Your task to perform on an android device: delete the emails in spam in the gmail app Image 0: 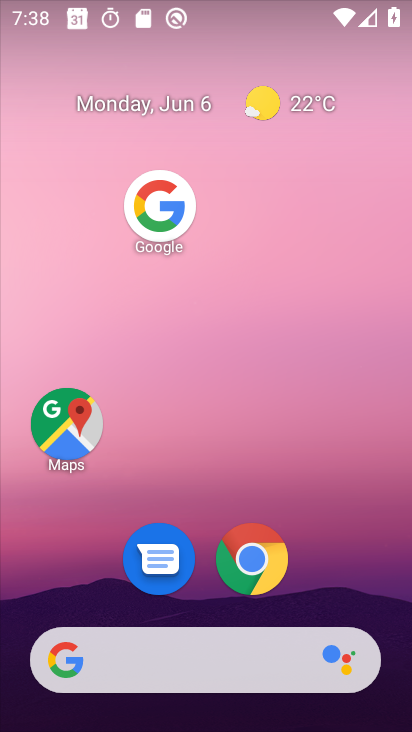
Step 0: drag from (214, 565) to (218, 99)
Your task to perform on an android device: delete the emails in spam in the gmail app Image 1: 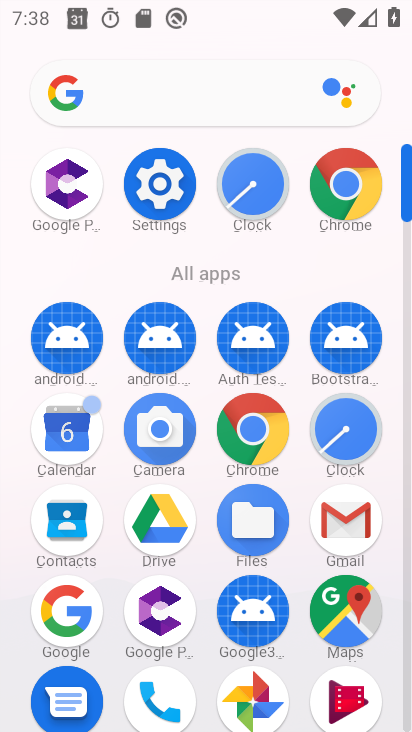
Step 1: click (352, 540)
Your task to perform on an android device: delete the emails in spam in the gmail app Image 2: 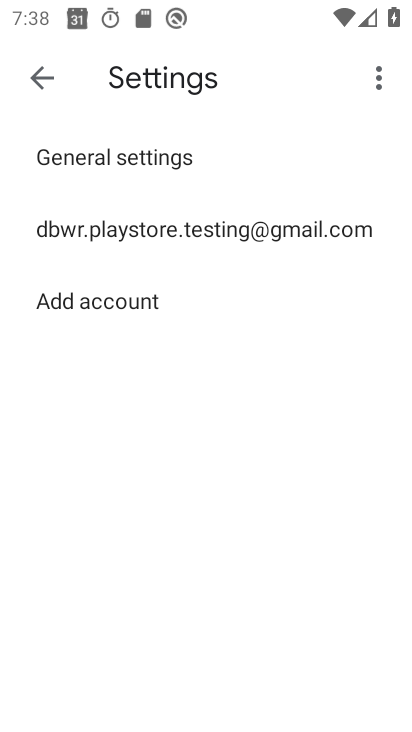
Step 2: click (53, 75)
Your task to perform on an android device: delete the emails in spam in the gmail app Image 3: 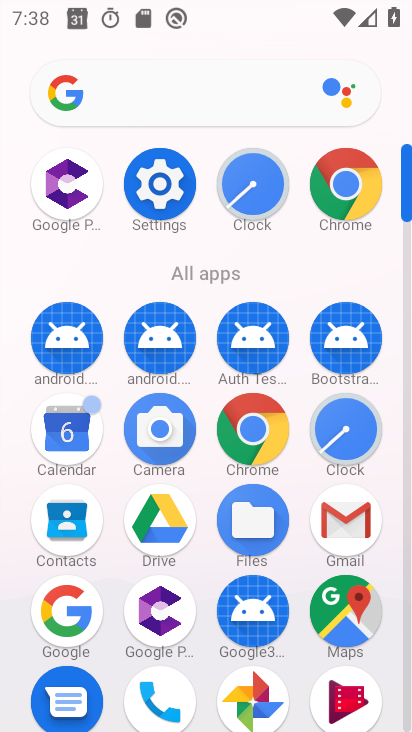
Step 3: click (347, 528)
Your task to perform on an android device: delete the emails in spam in the gmail app Image 4: 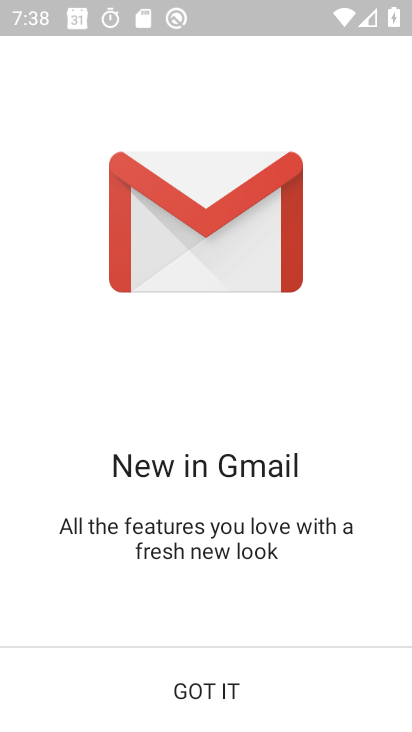
Step 4: click (229, 677)
Your task to perform on an android device: delete the emails in spam in the gmail app Image 5: 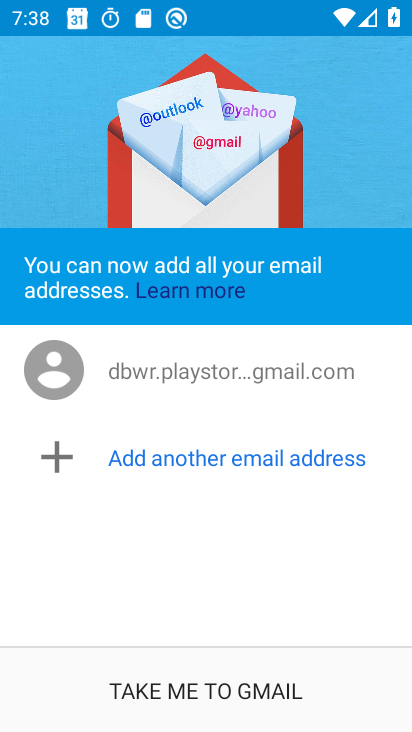
Step 5: click (228, 673)
Your task to perform on an android device: delete the emails in spam in the gmail app Image 6: 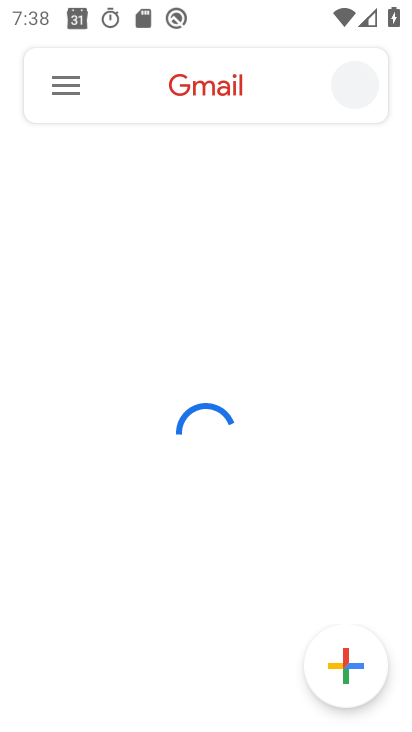
Step 6: click (65, 91)
Your task to perform on an android device: delete the emails in spam in the gmail app Image 7: 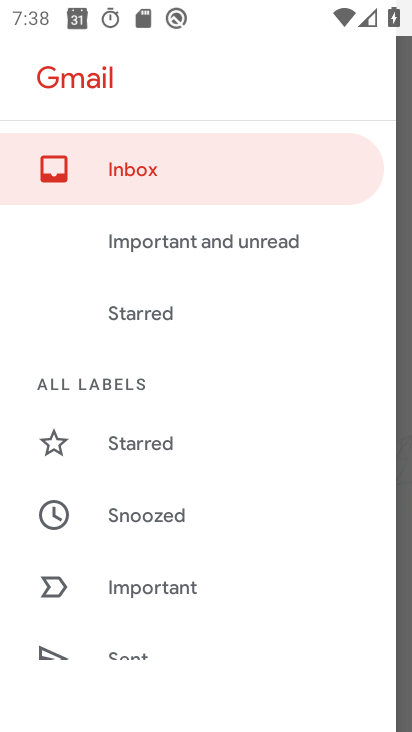
Step 7: drag from (138, 629) to (157, 242)
Your task to perform on an android device: delete the emails in spam in the gmail app Image 8: 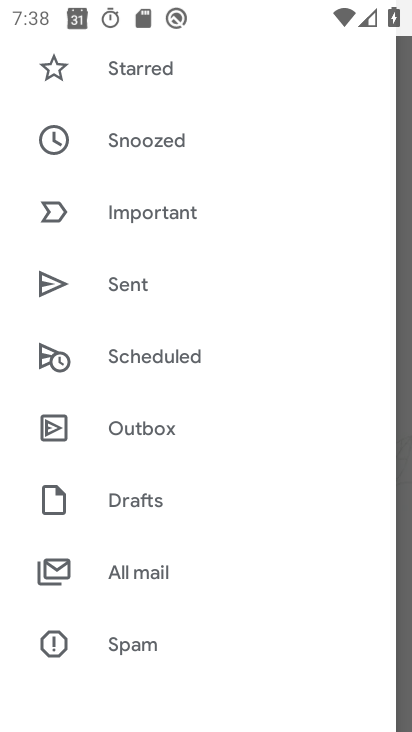
Step 8: click (147, 641)
Your task to perform on an android device: delete the emails in spam in the gmail app Image 9: 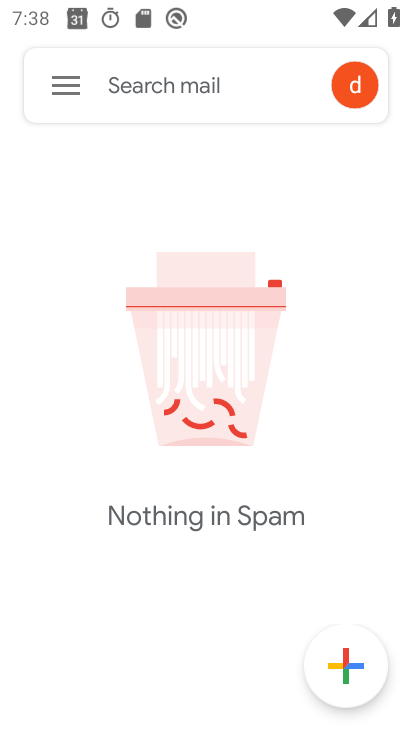
Step 9: task complete